Your task to perform on an android device: open app "WhatsApp Messenger" (install if not already installed) Image 0: 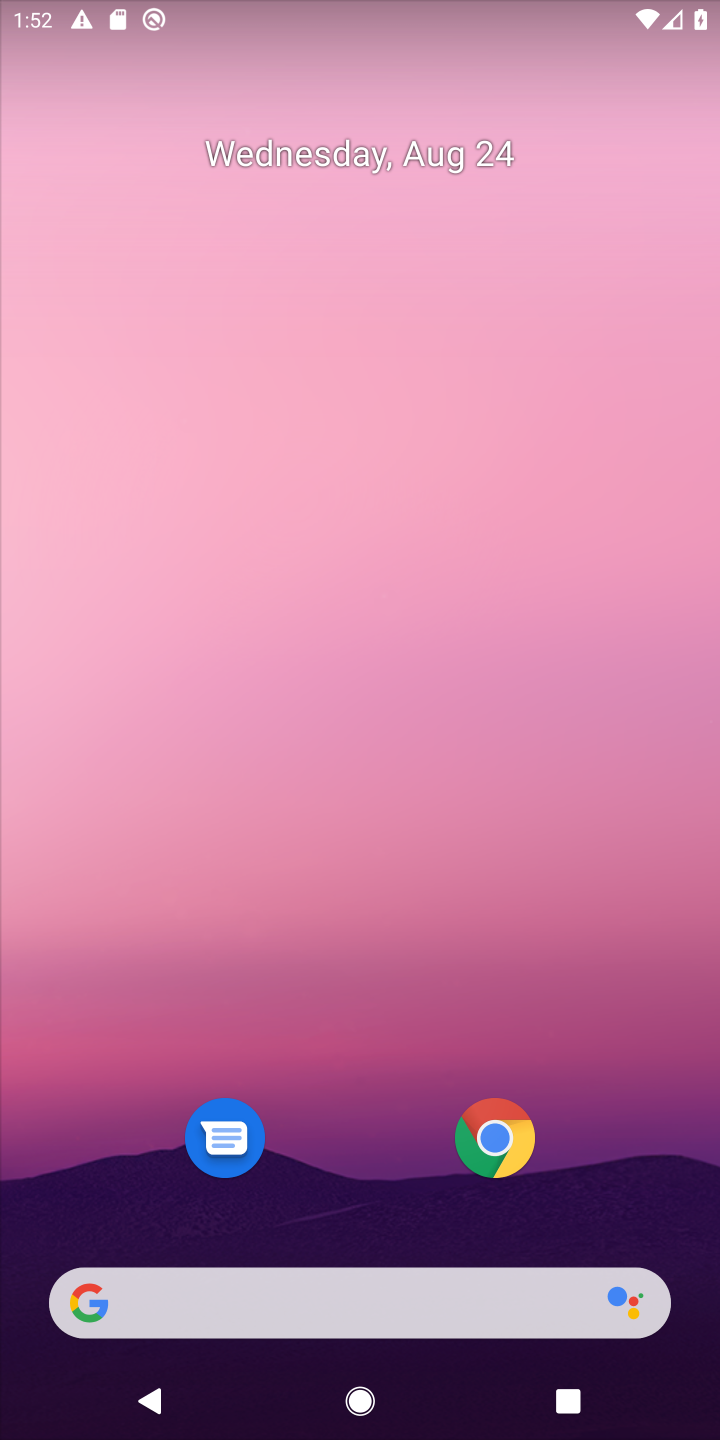
Step 0: drag from (376, 915) to (338, 58)
Your task to perform on an android device: open app "WhatsApp Messenger" (install if not already installed) Image 1: 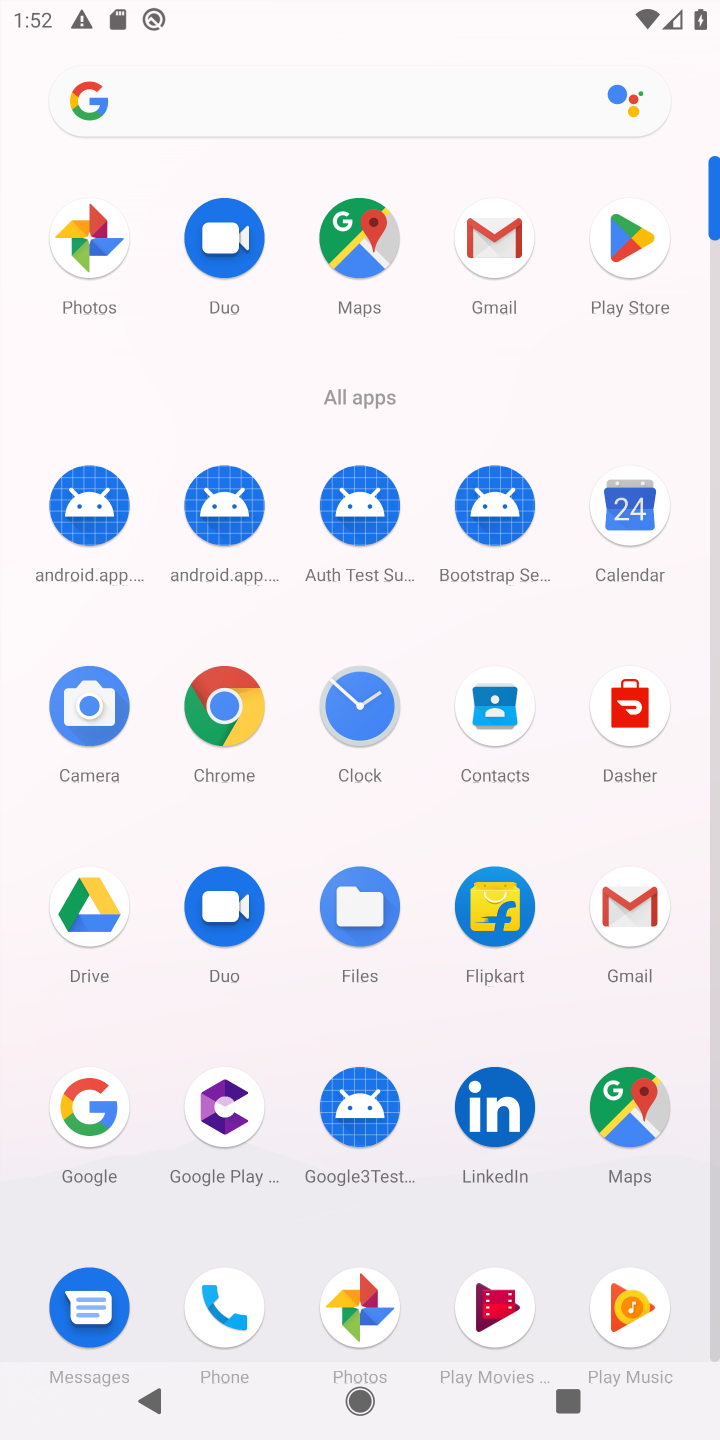
Step 1: click (624, 251)
Your task to perform on an android device: open app "WhatsApp Messenger" (install if not already installed) Image 2: 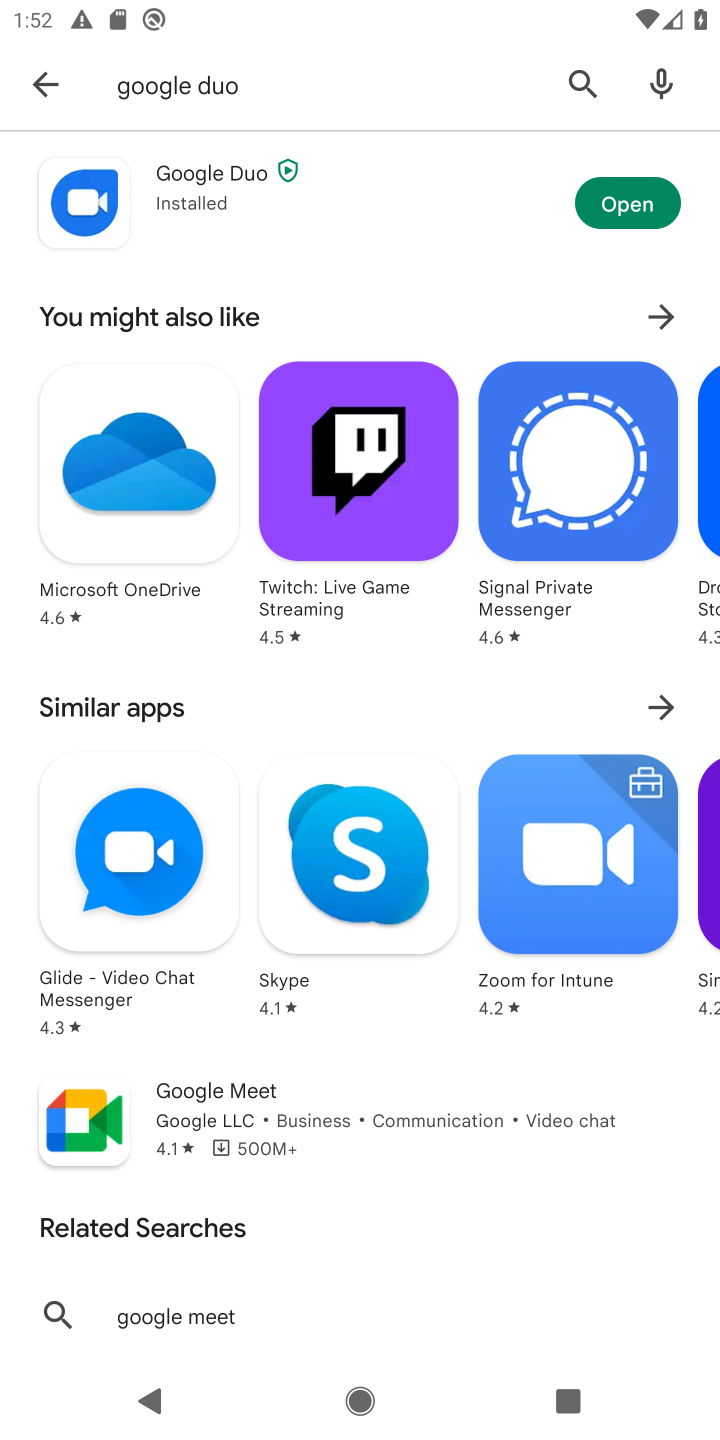
Step 2: click (575, 81)
Your task to perform on an android device: open app "WhatsApp Messenger" (install if not already installed) Image 3: 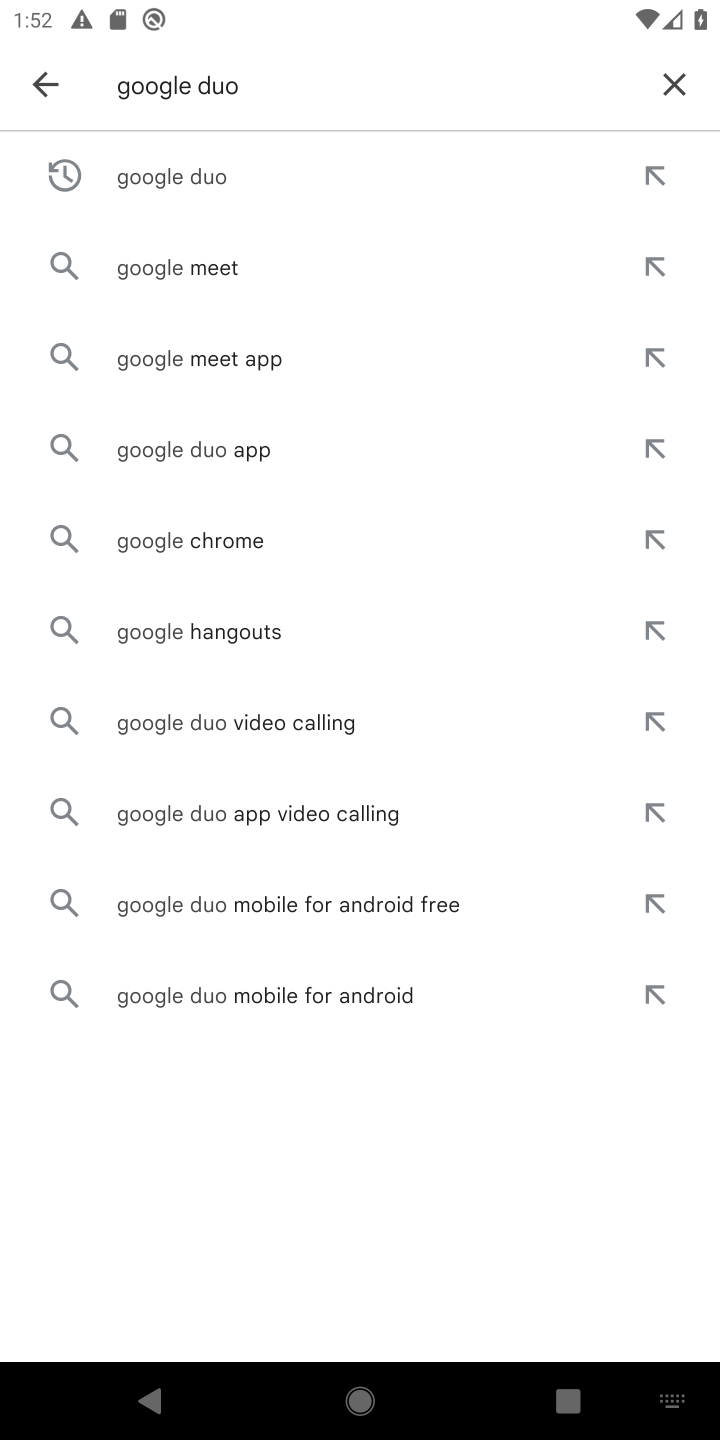
Step 3: click (677, 82)
Your task to perform on an android device: open app "WhatsApp Messenger" (install if not already installed) Image 4: 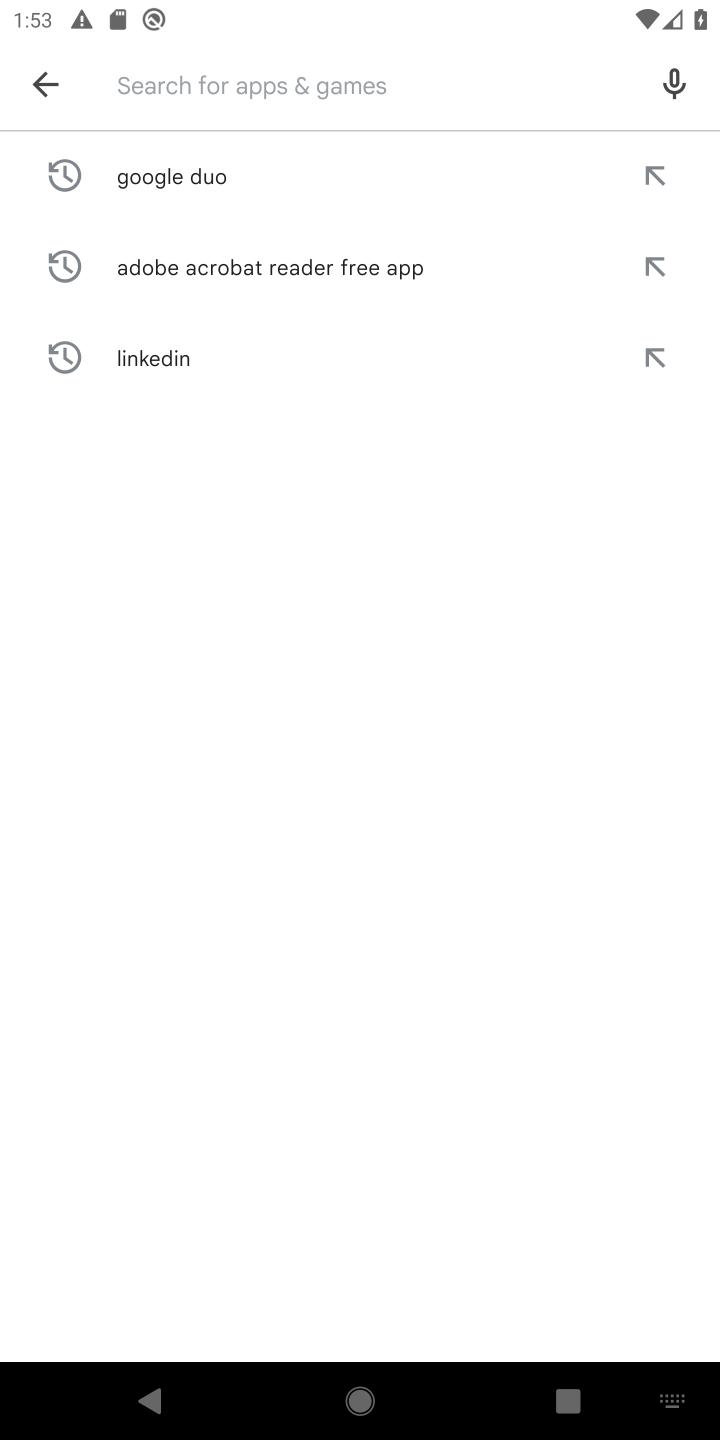
Step 4: type "WhatsApp Messenger"
Your task to perform on an android device: open app "WhatsApp Messenger" (install if not already installed) Image 5: 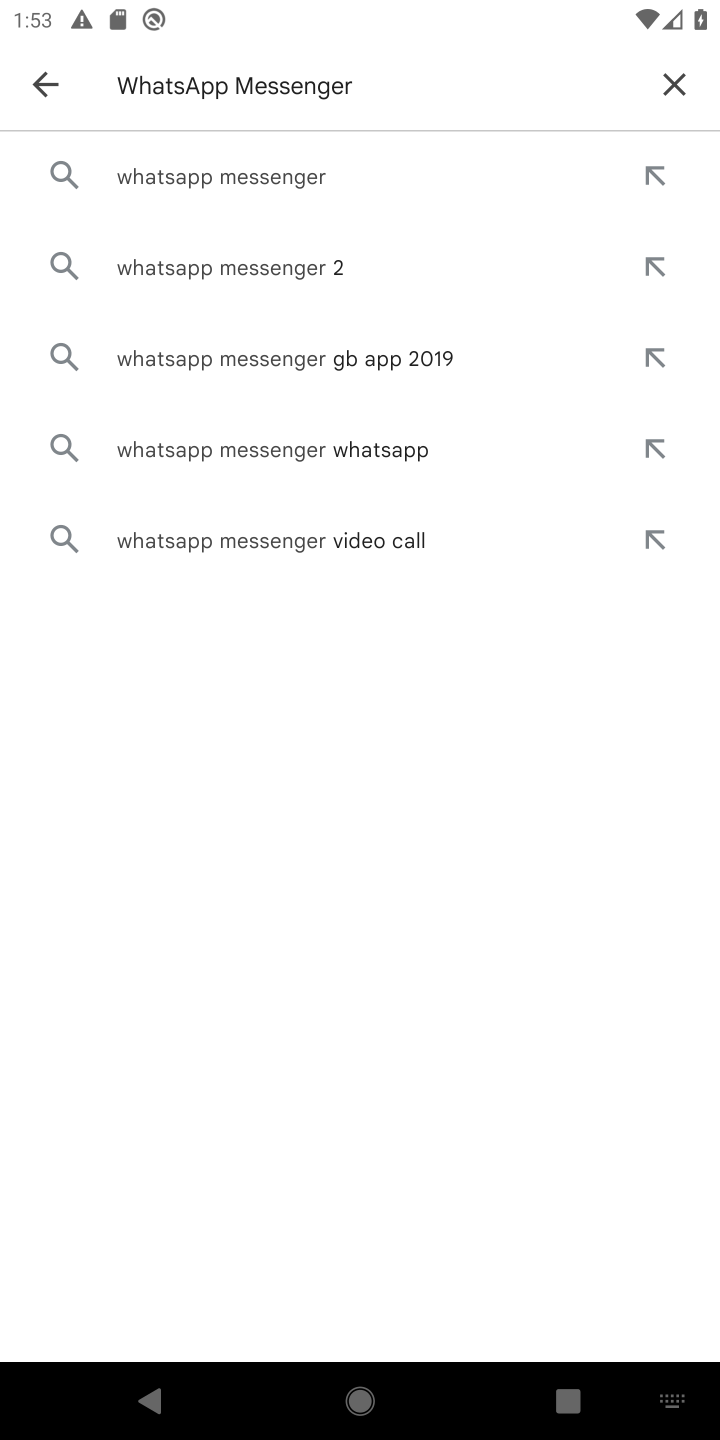
Step 5: click (189, 173)
Your task to perform on an android device: open app "WhatsApp Messenger" (install if not already installed) Image 6: 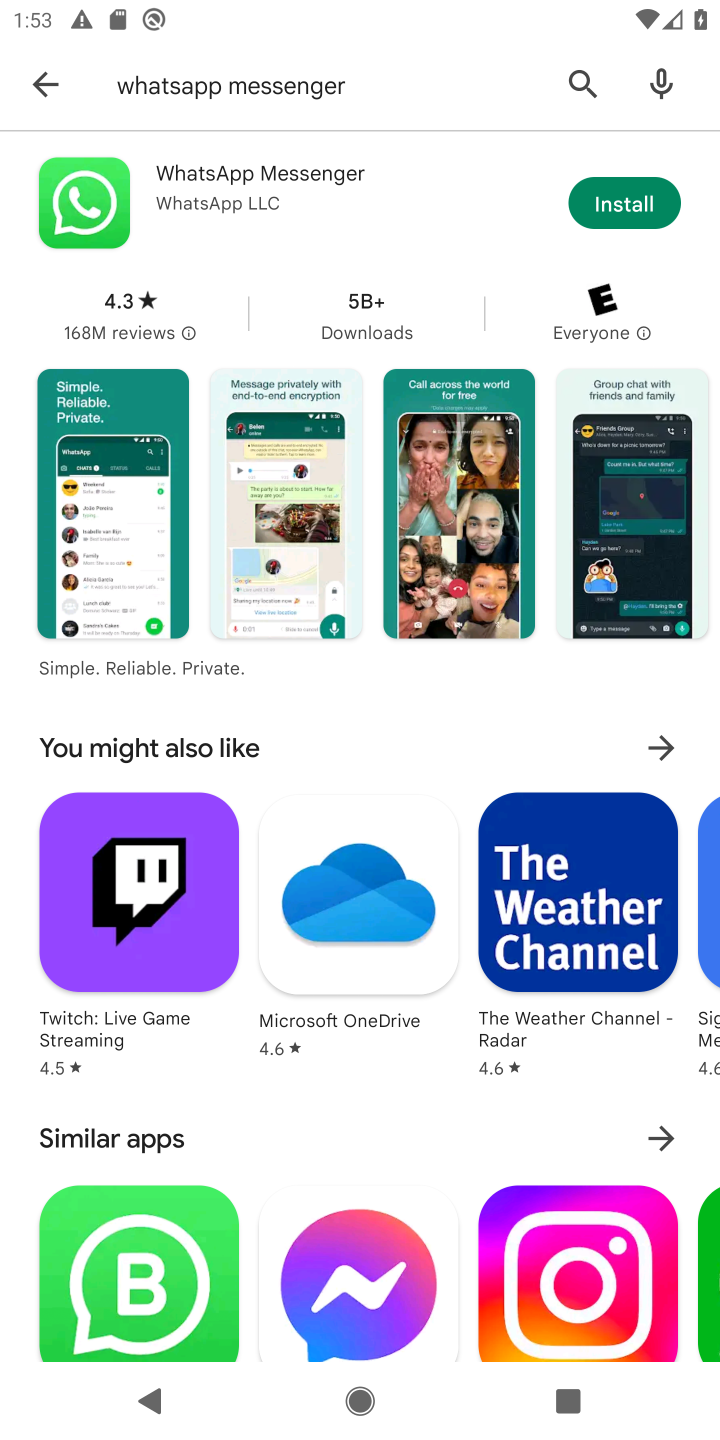
Step 6: click (639, 196)
Your task to perform on an android device: open app "WhatsApp Messenger" (install if not already installed) Image 7: 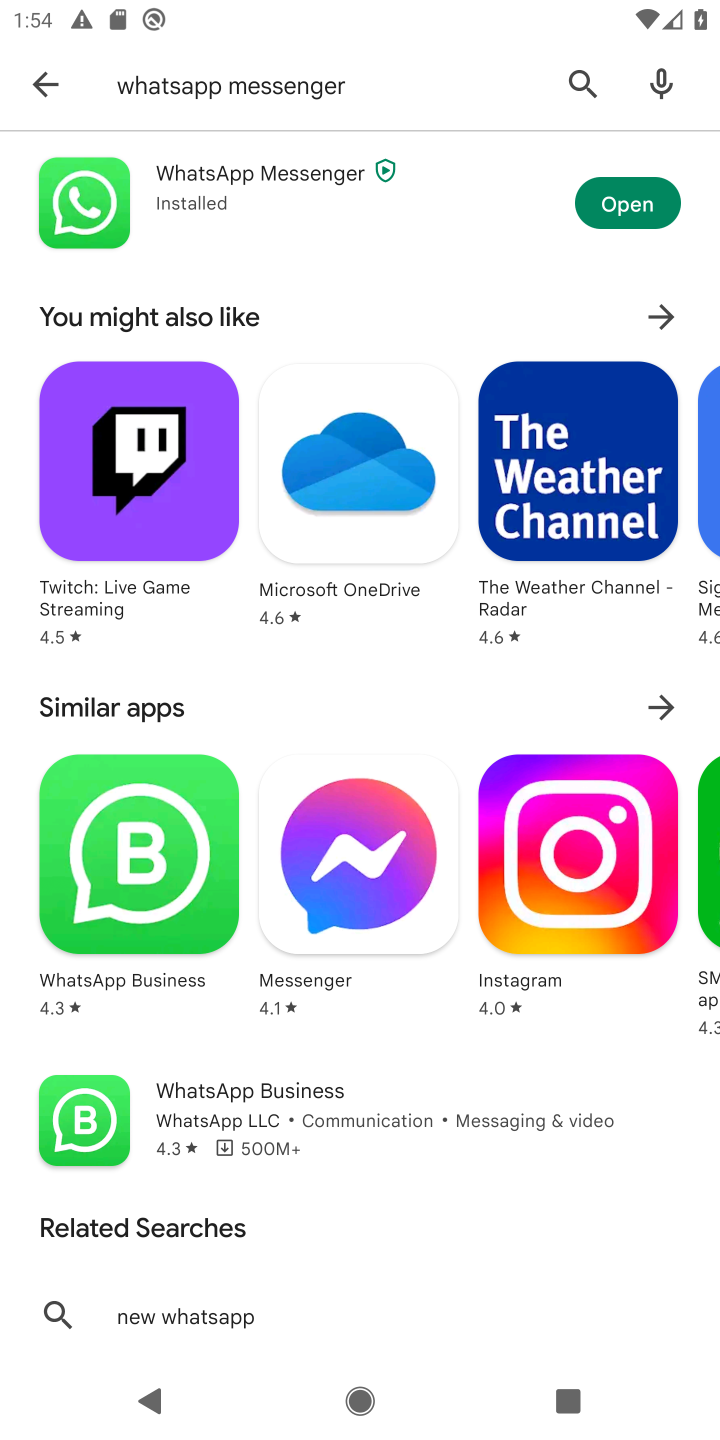
Step 7: click (617, 207)
Your task to perform on an android device: open app "WhatsApp Messenger" (install if not already installed) Image 8: 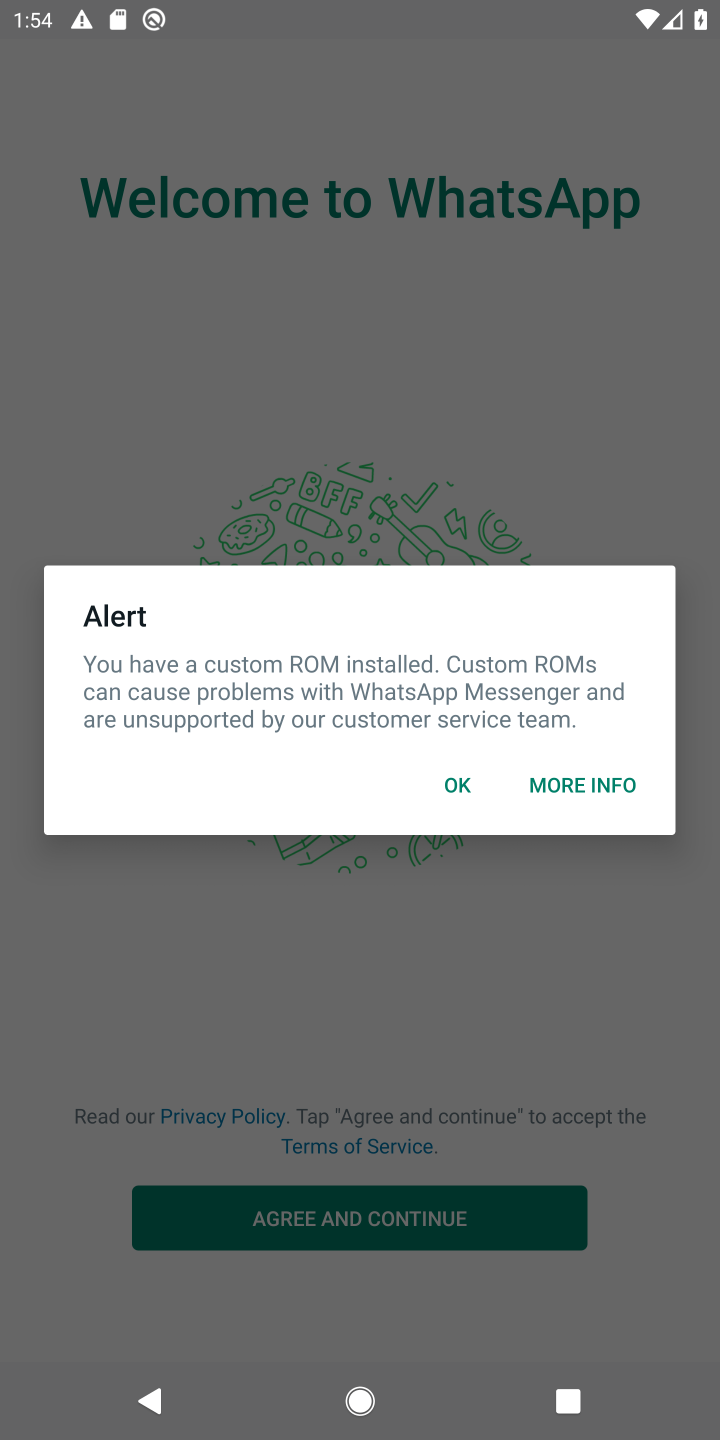
Step 8: task complete